Your task to perform on an android device: check out phone information Image 0: 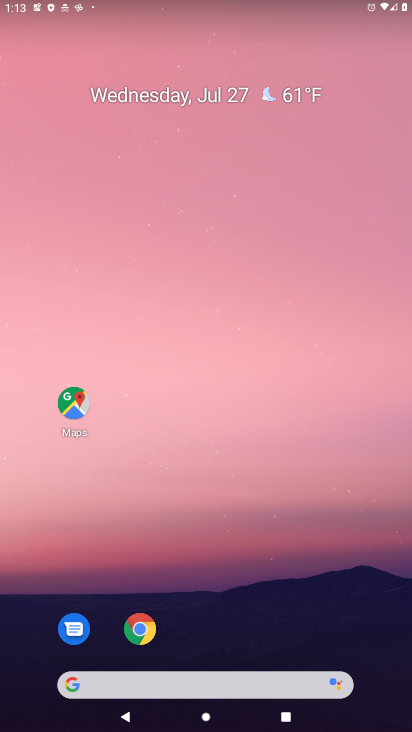
Step 0: drag from (277, 600) to (237, 0)
Your task to perform on an android device: check out phone information Image 1: 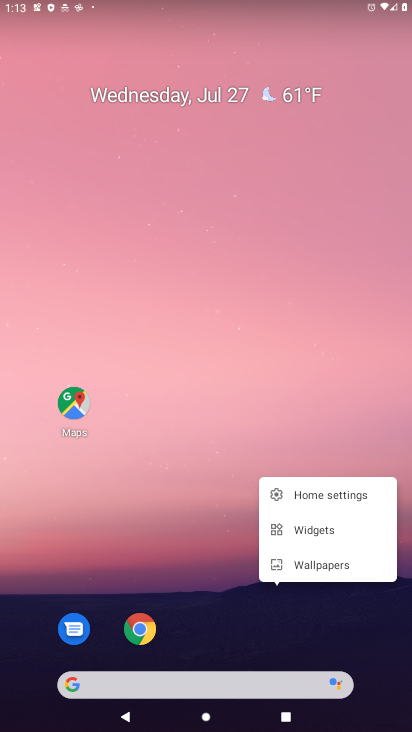
Step 1: click (207, 619)
Your task to perform on an android device: check out phone information Image 2: 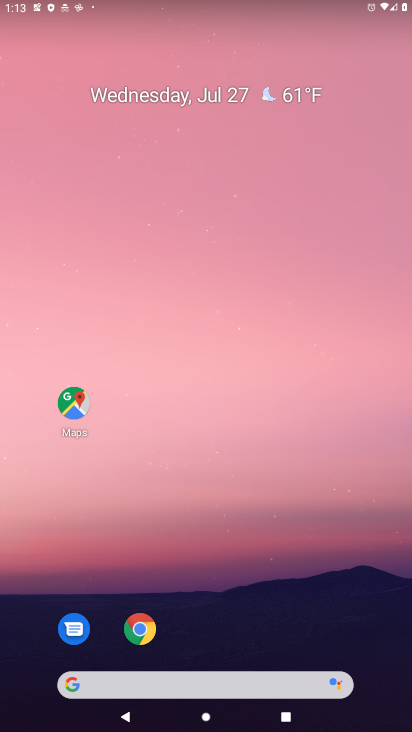
Step 2: drag from (240, 641) to (264, 52)
Your task to perform on an android device: check out phone information Image 3: 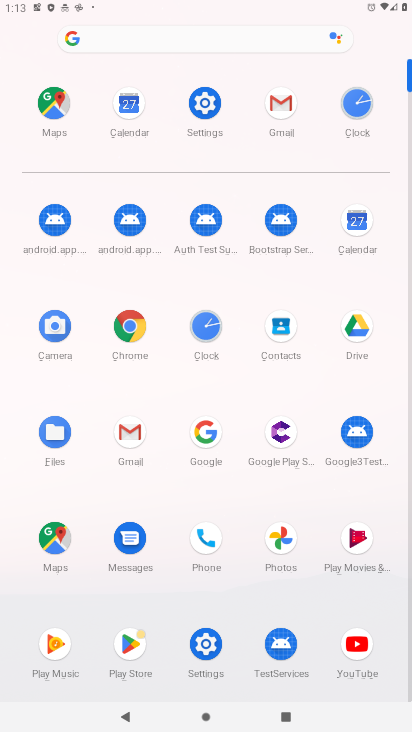
Step 3: click (222, 133)
Your task to perform on an android device: check out phone information Image 4: 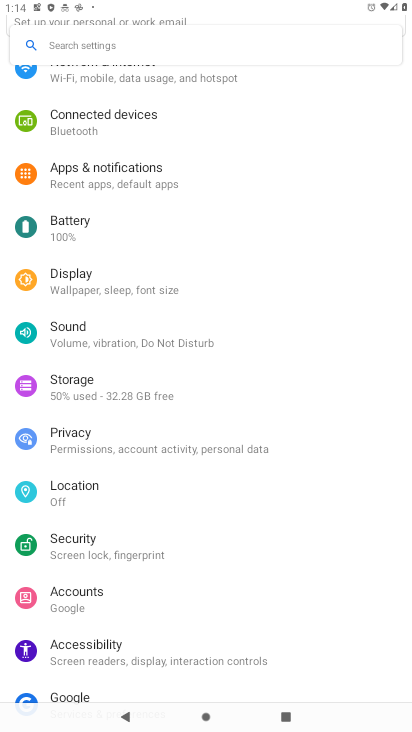
Step 4: task complete